Your task to perform on an android device: Open Google Maps Image 0: 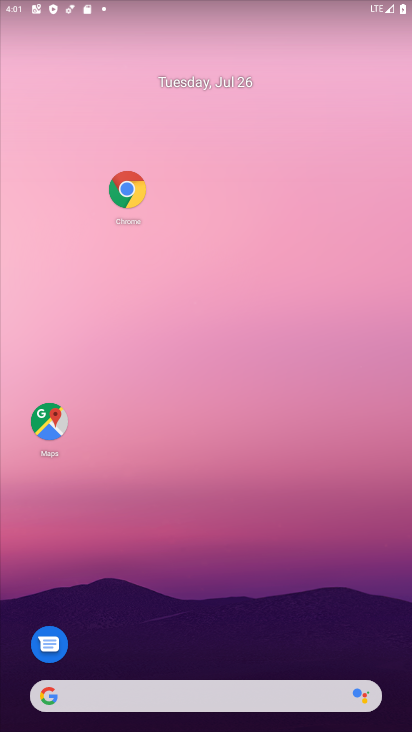
Step 0: drag from (150, 652) to (169, 192)
Your task to perform on an android device: Open Google Maps Image 1: 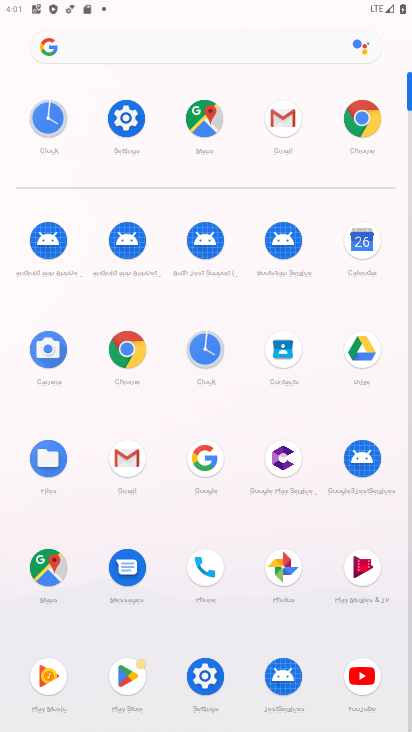
Step 1: click (67, 557)
Your task to perform on an android device: Open Google Maps Image 2: 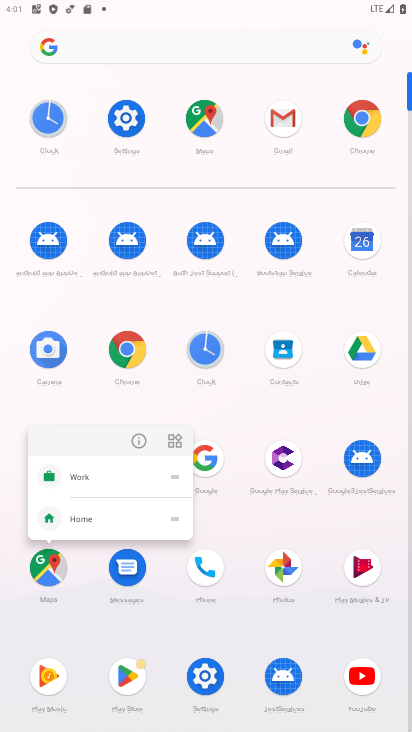
Step 2: click (48, 568)
Your task to perform on an android device: Open Google Maps Image 3: 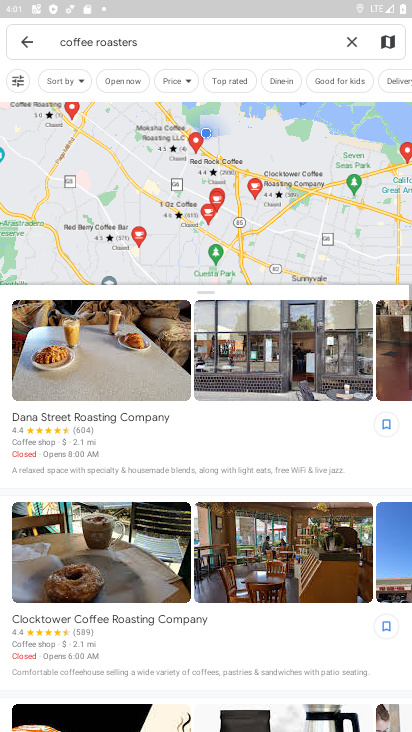
Step 3: click (29, 45)
Your task to perform on an android device: Open Google Maps Image 4: 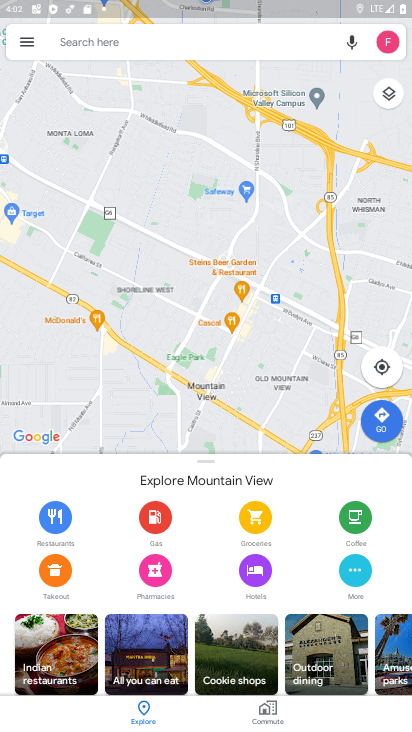
Step 4: task complete